Your task to perform on an android device: Open my contact list Image 0: 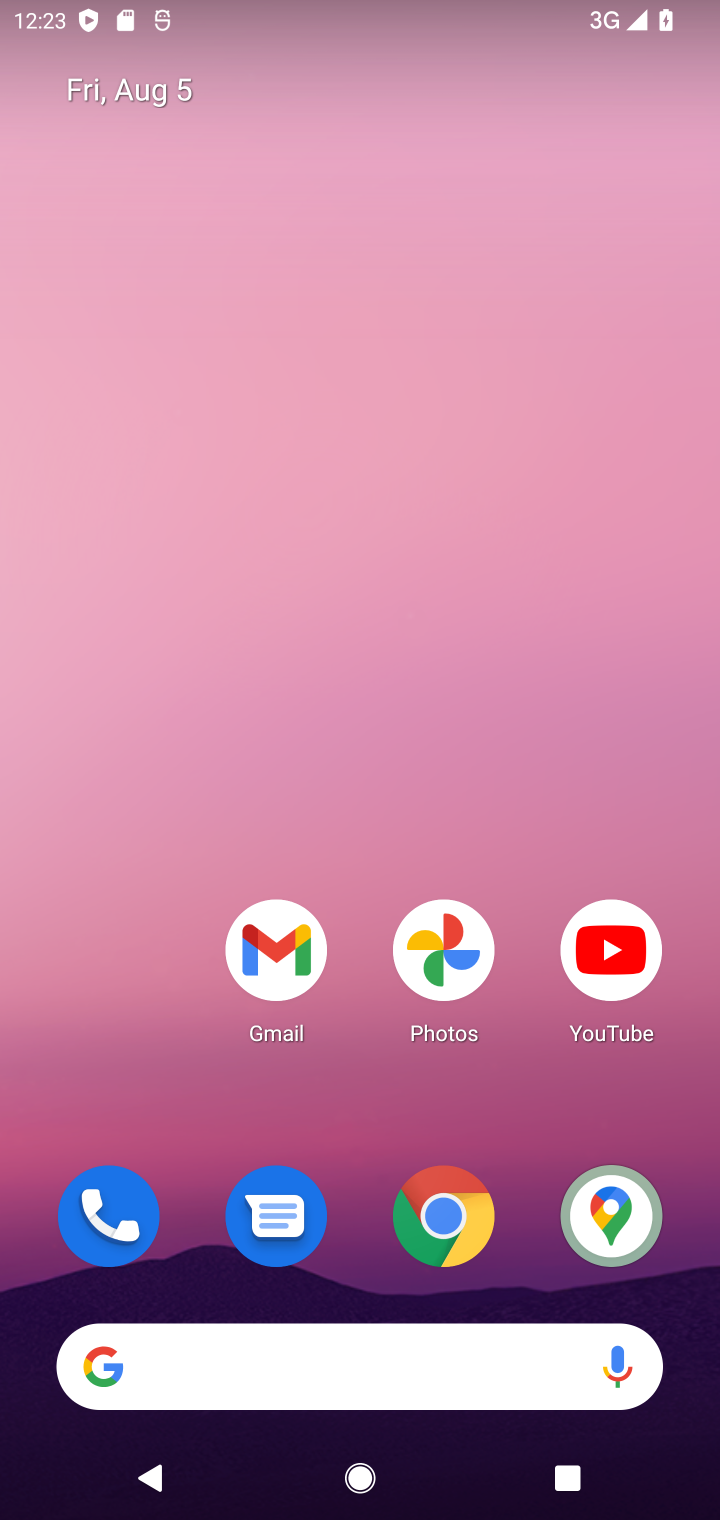
Step 0: drag from (345, 1344) to (257, 679)
Your task to perform on an android device: Open my contact list Image 1: 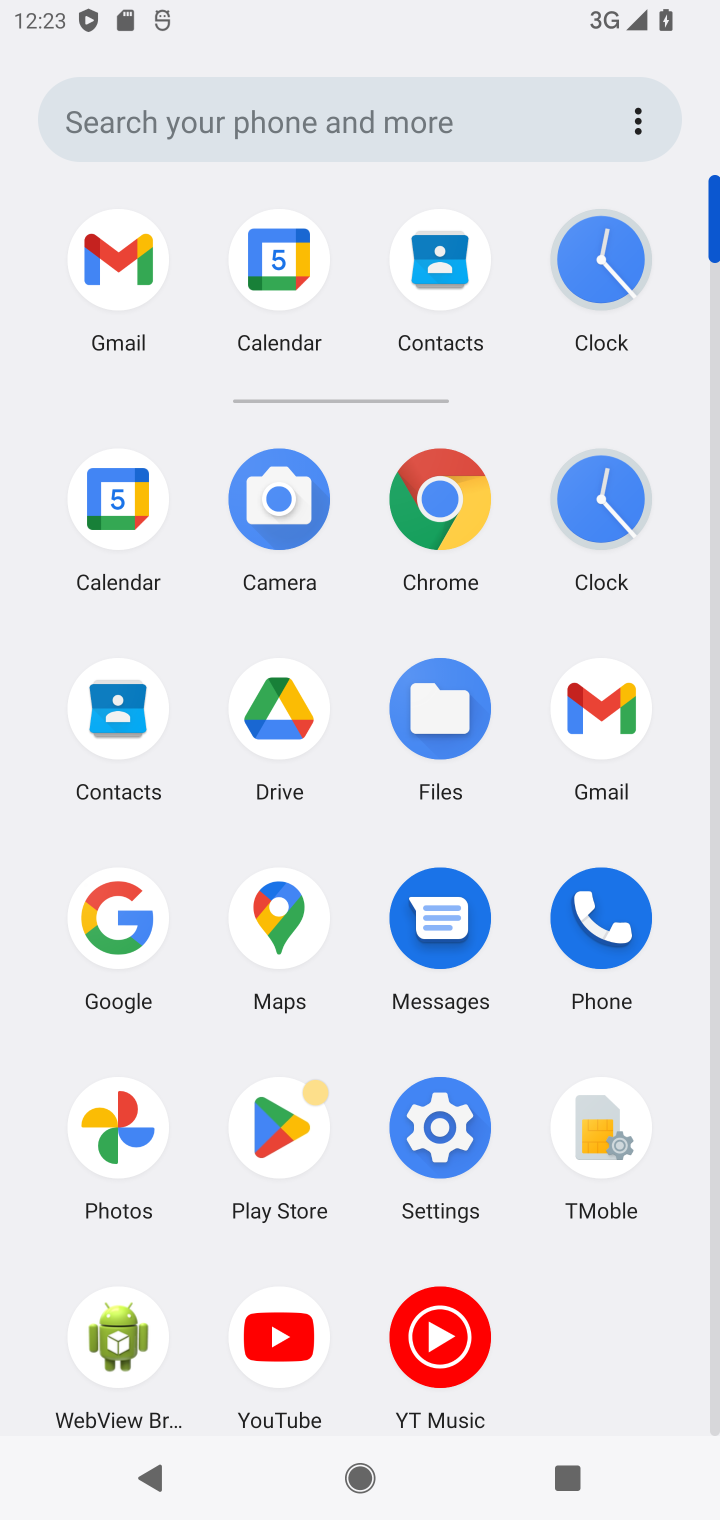
Step 1: click (125, 710)
Your task to perform on an android device: Open my contact list Image 2: 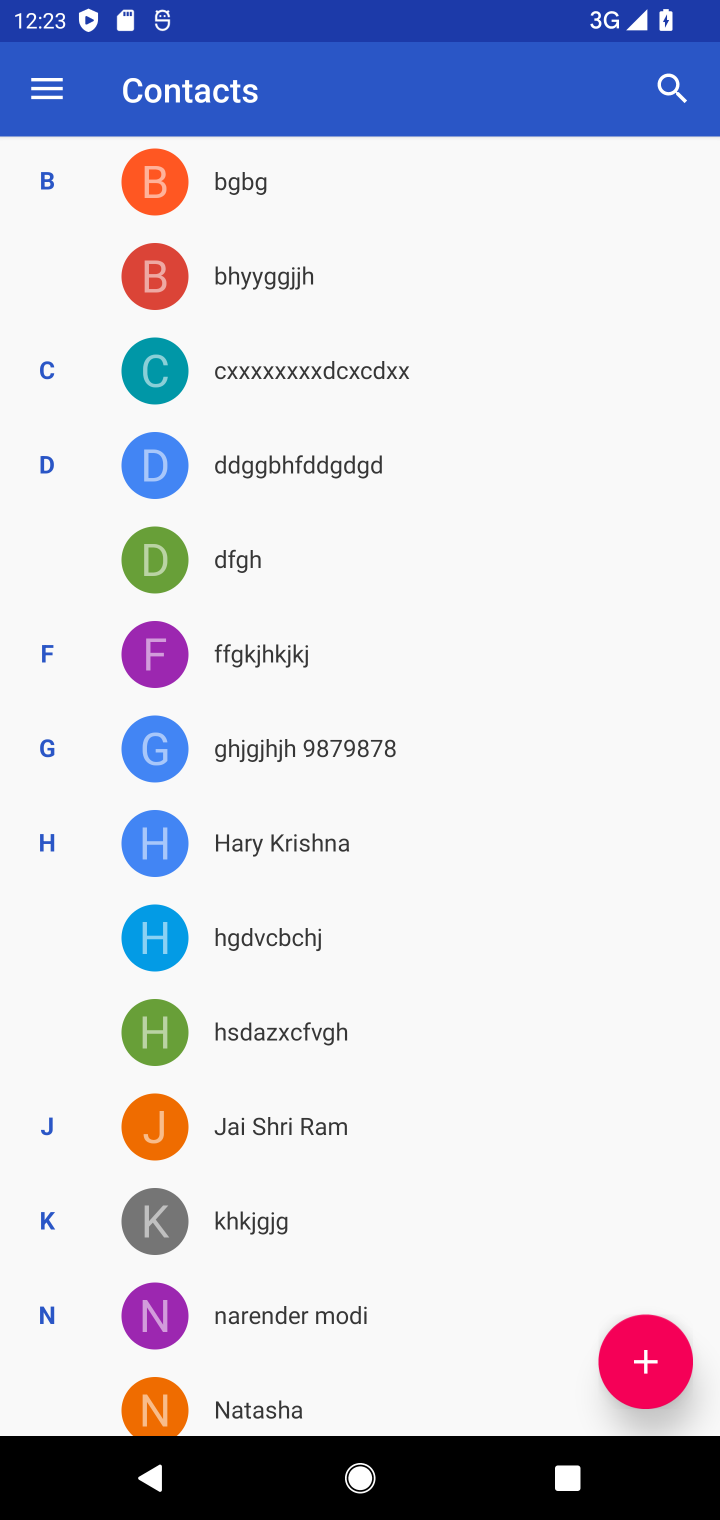
Step 2: task complete